Your task to perform on an android device: Go to accessibility settings Image 0: 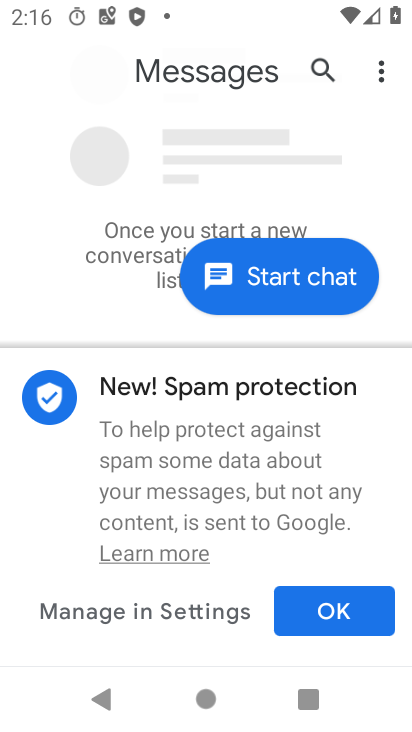
Step 0: press home button
Your task to perform on an android device: Go to accessibility settings Image 1: 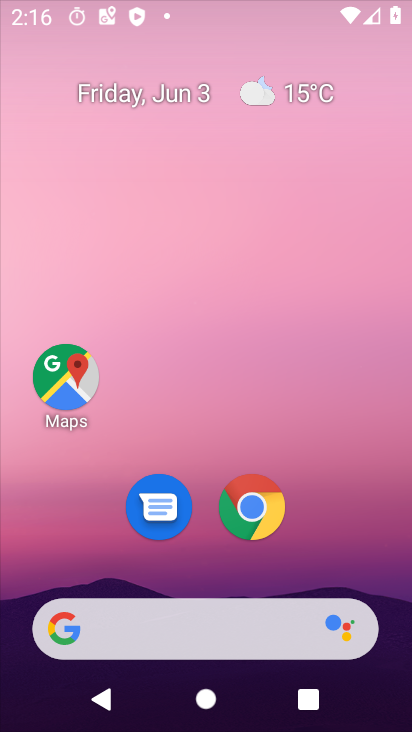
Step 1: drag from (400, 651) to (305, 69)
Your task to perform on an android device: Go to accessibility settings Image 2: 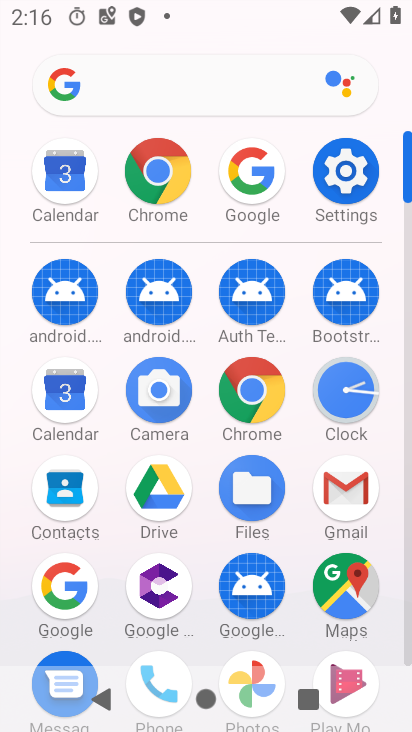
Step 2: click (330, 189)
Your task to perform on an android device: Go to accessibility settings Image 3: 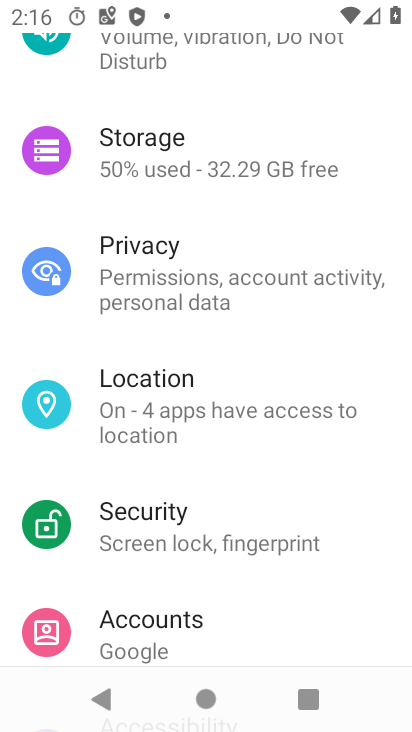
Step 3: drag from (173, 571) to (177, 146)
Your task to perform on an android device: Go to accessibility settings Image 4: 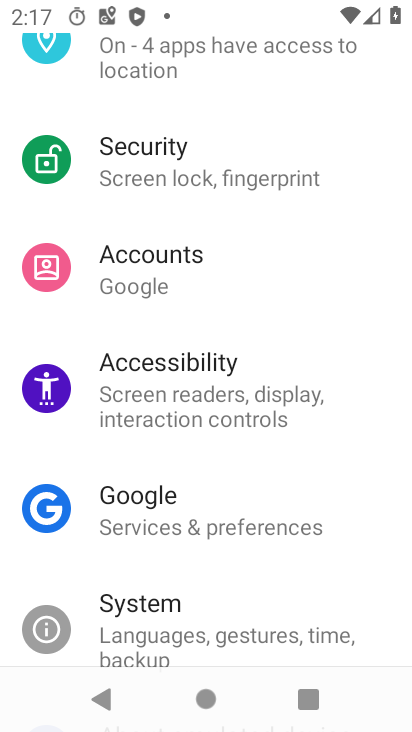
Step 4: click (183, 401)
Your task to perform on an android device: Go to accessibility settings Image 5: 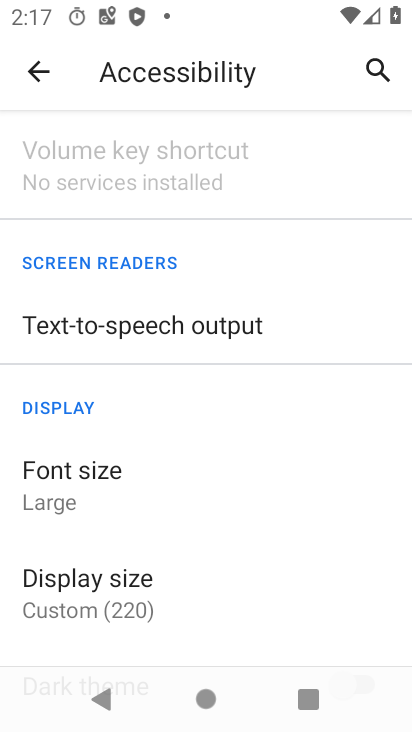
Step 5: task complete